Your task to perform on an android device: Open Maps and search for coffee Image 0: 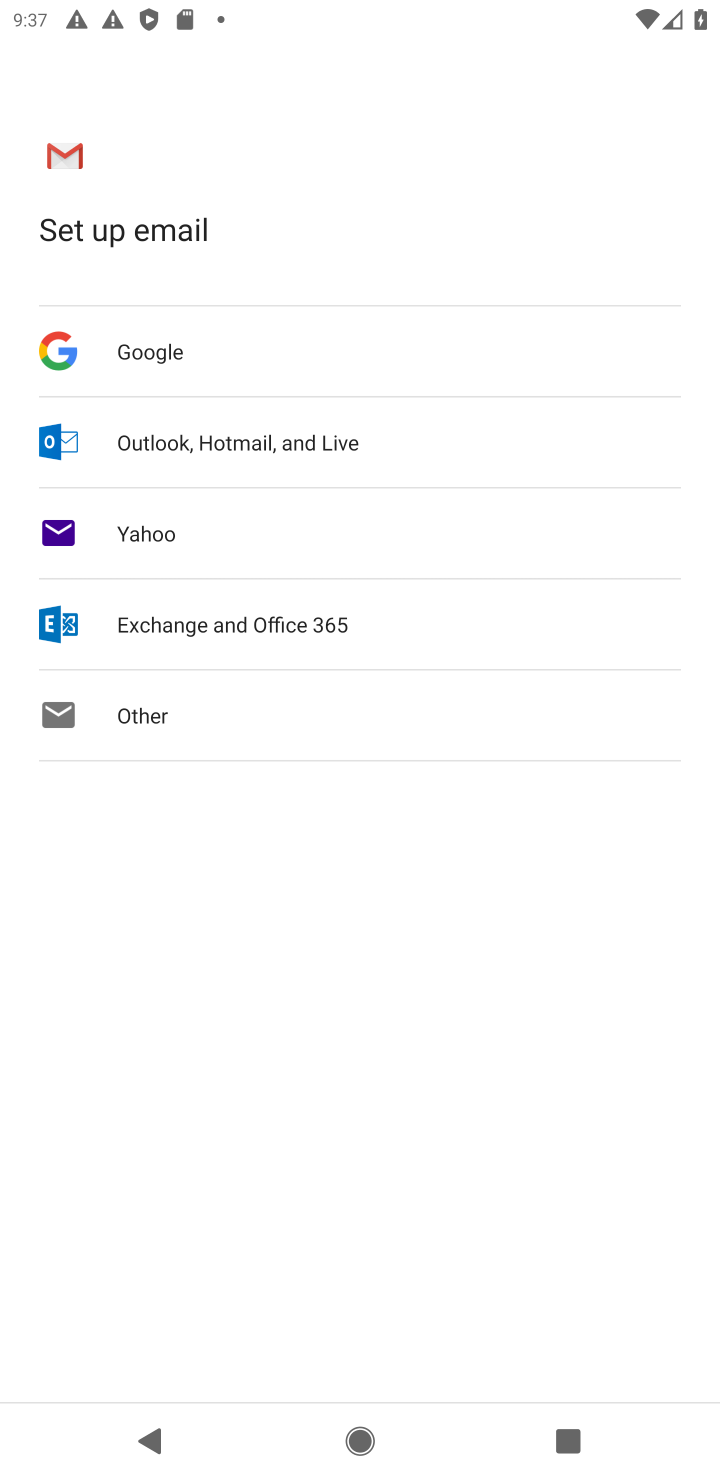
Step 0: press home button
Your task to perform on an android device: Open Maps and search for coffee Image 1: 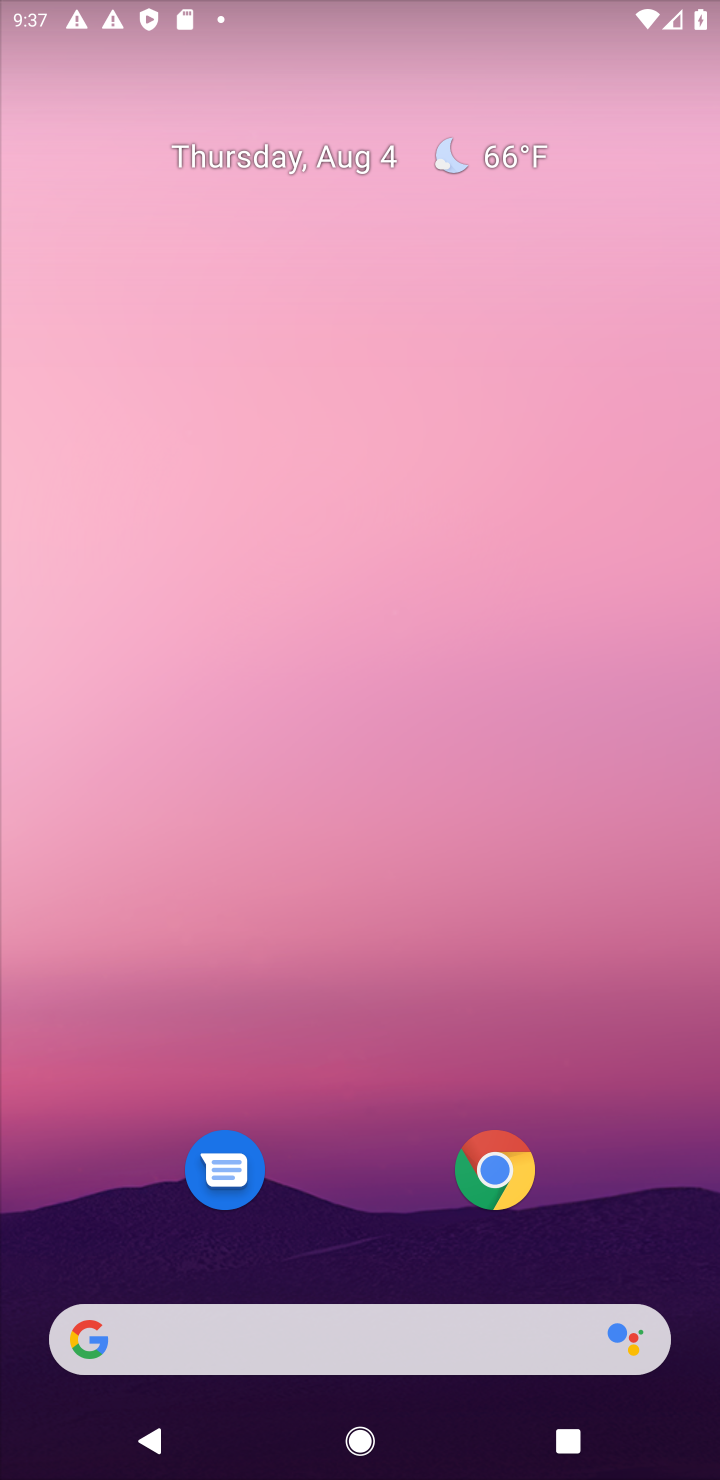
Step 1: drag from (379, 792) to (441, 1)
Your task to perform on an android device: Open Maps and search for coffee Image 2: 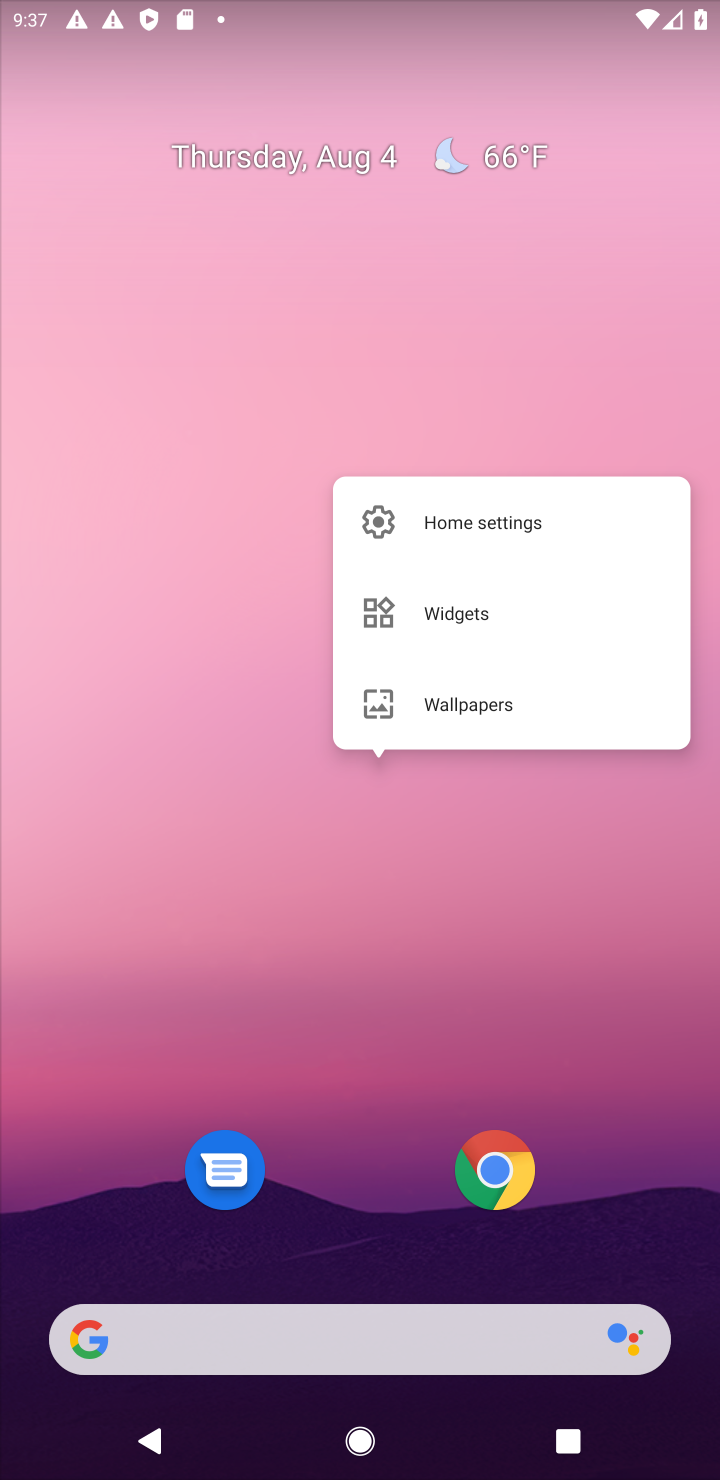
Step 2: click (456, 1143)
Your task to perform on an android device: Open Maps and search for coffee Image 3: 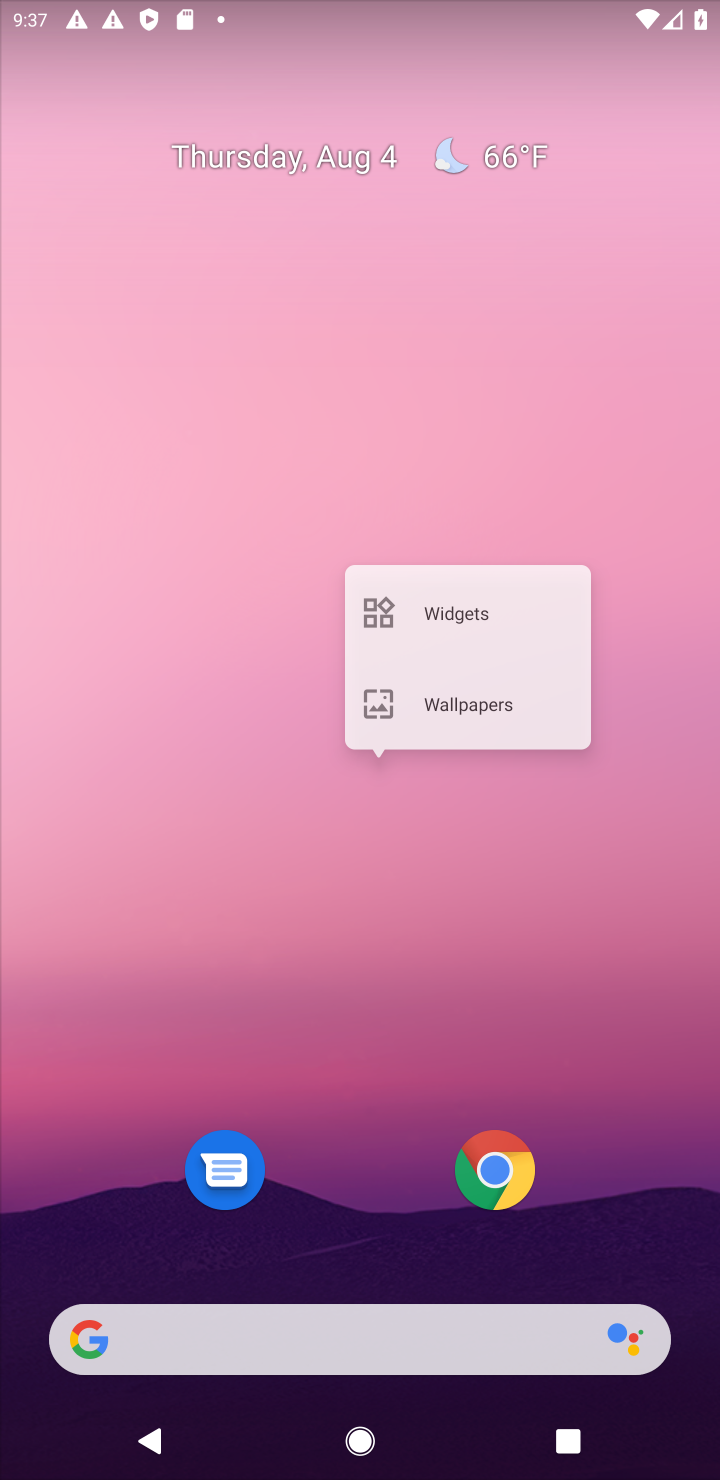
Step 3: click (388, 1012)
Your task to perform on an android device: Open Maps and search for coffee Image 4: 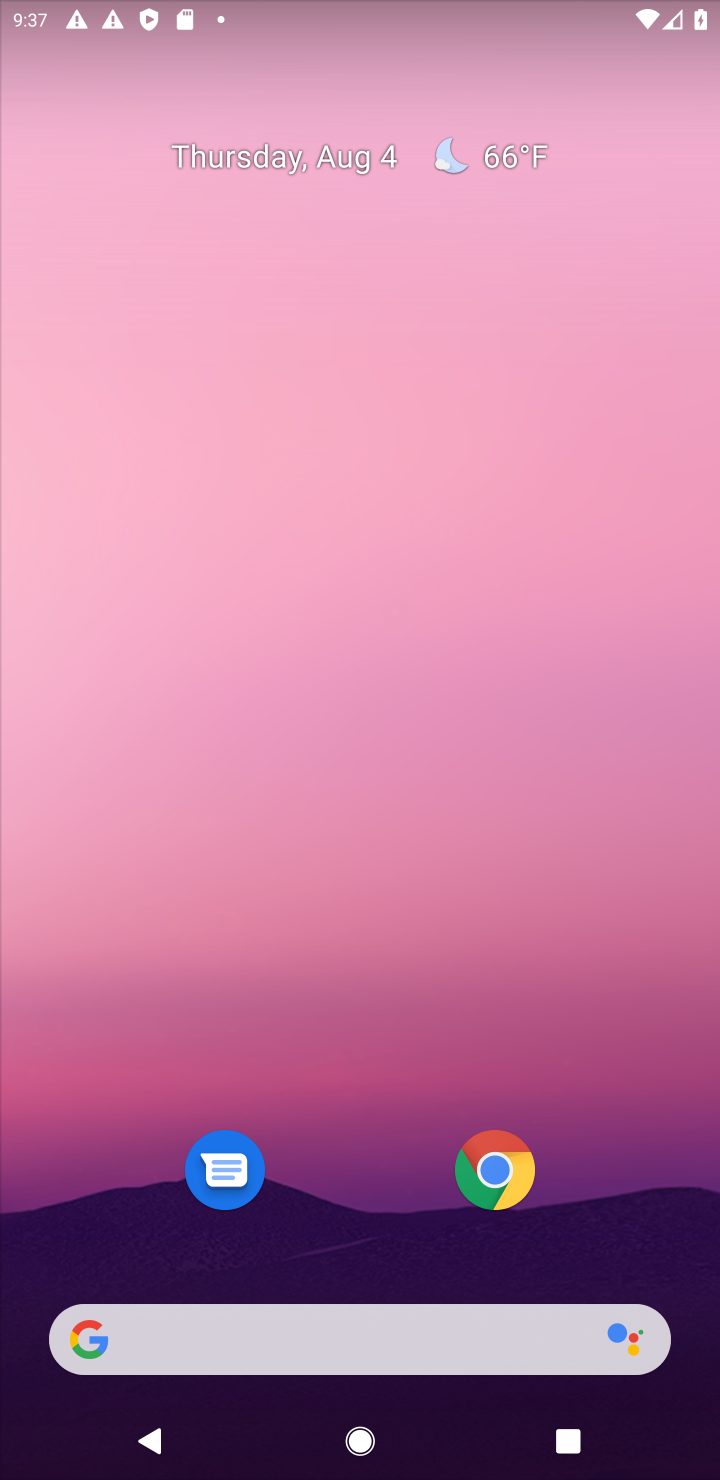
Step 4: drag from (370, 1024) to (344, 5)
Your task to perform on an android device: Open Maps and search for coffee Image 5: 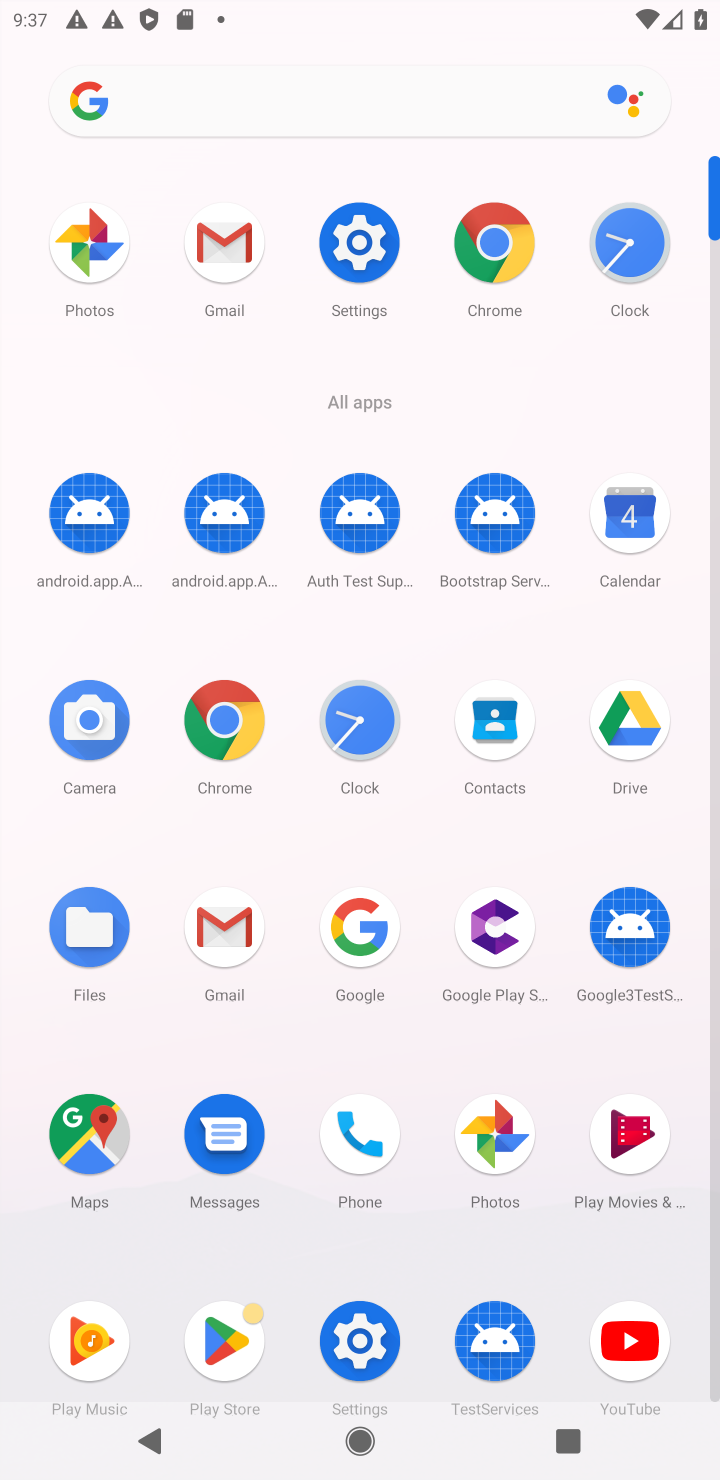
Step 5: click (105, 1157)
Your task to perform on an android device: Open Maps and search for coffee Image 6: 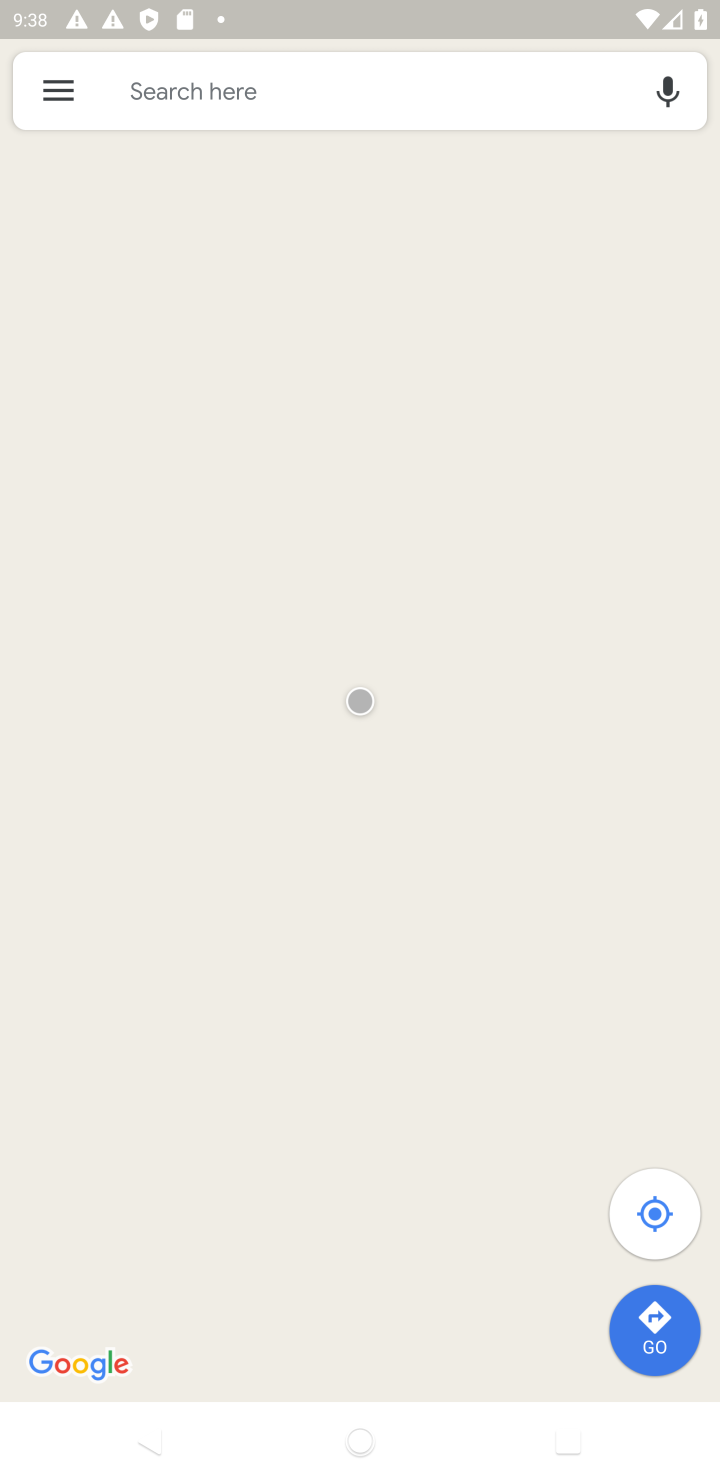
Step 6: click (137, 70)
Your task to perform on an android device: Open Maps and search for coffee Image 7: 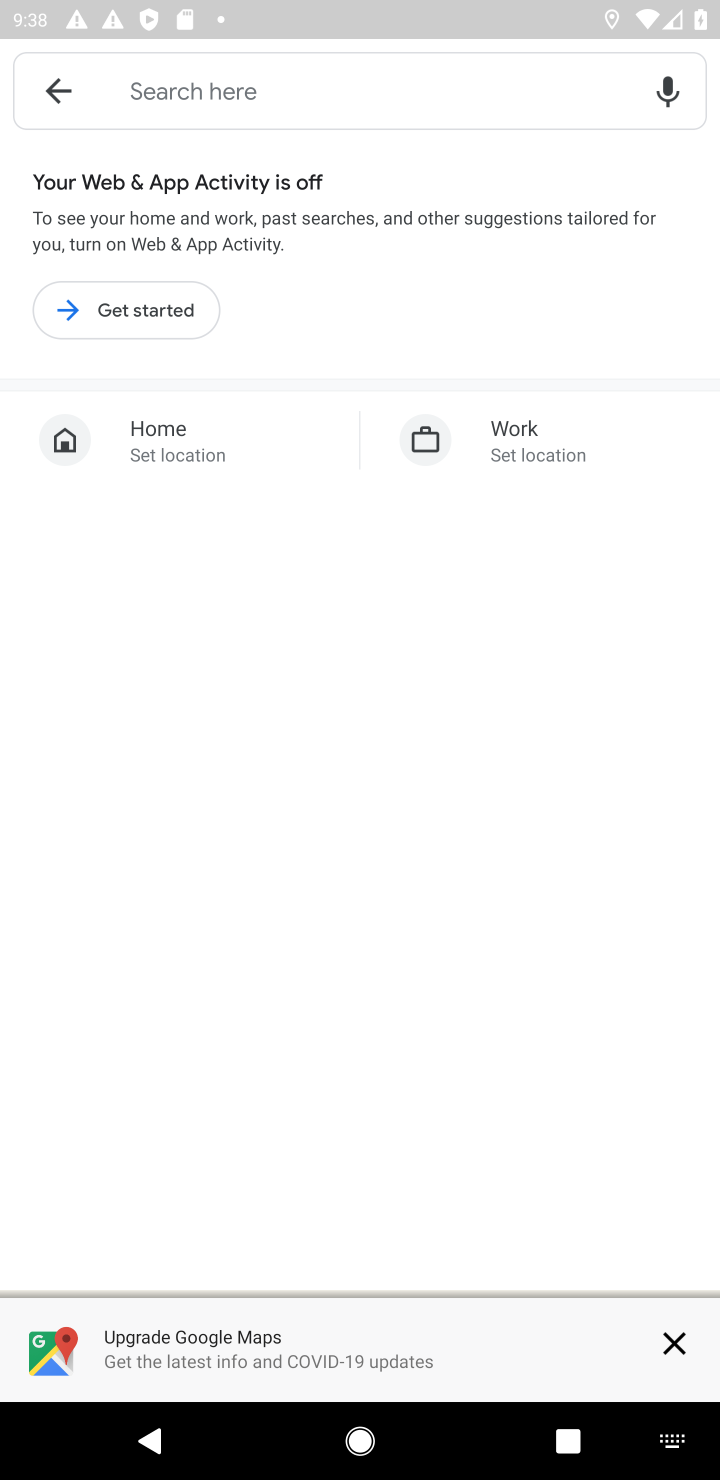
Step 7: type "coffee"
Your task to perform on an android device: Open Maps and search for coffee Image 8: 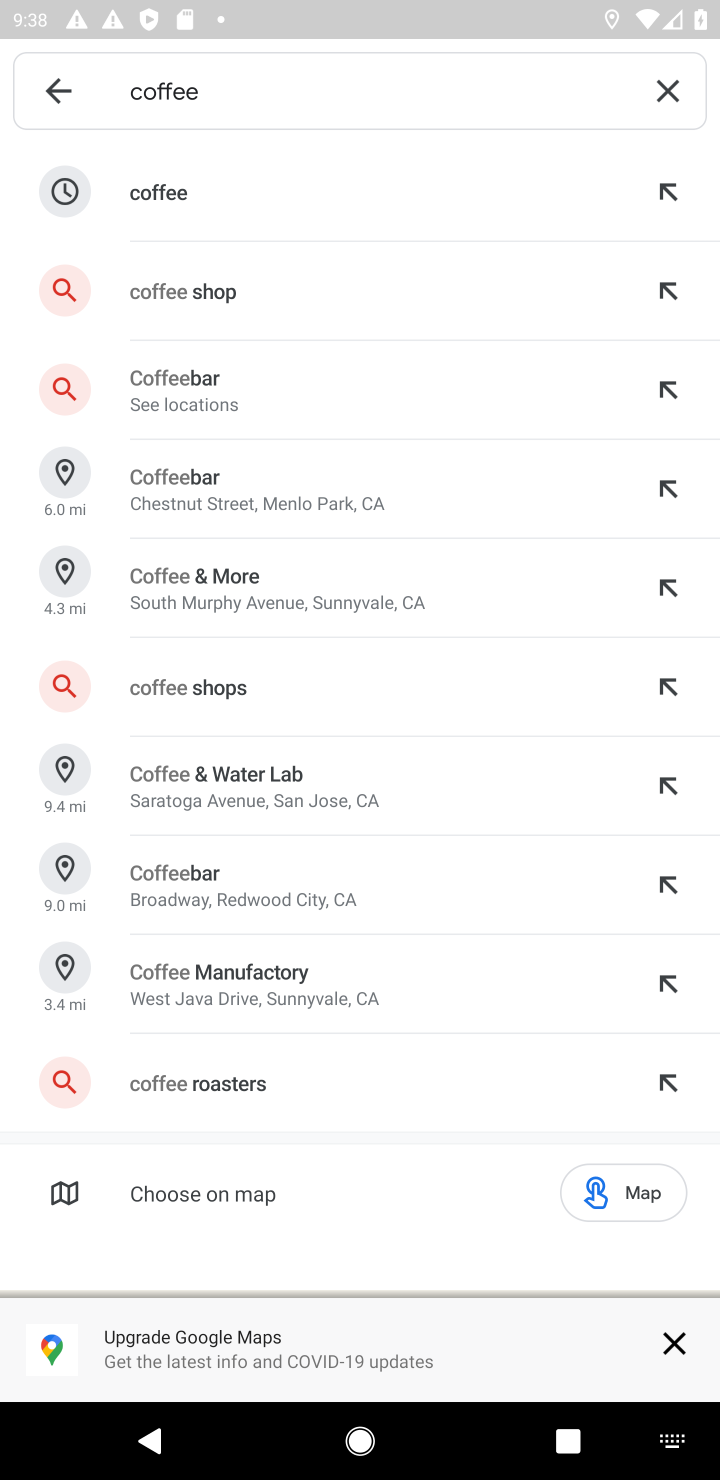
Step 8: click (225, 205)
Your task to perform on an android device: Open Maps and search for coffee Image 9: 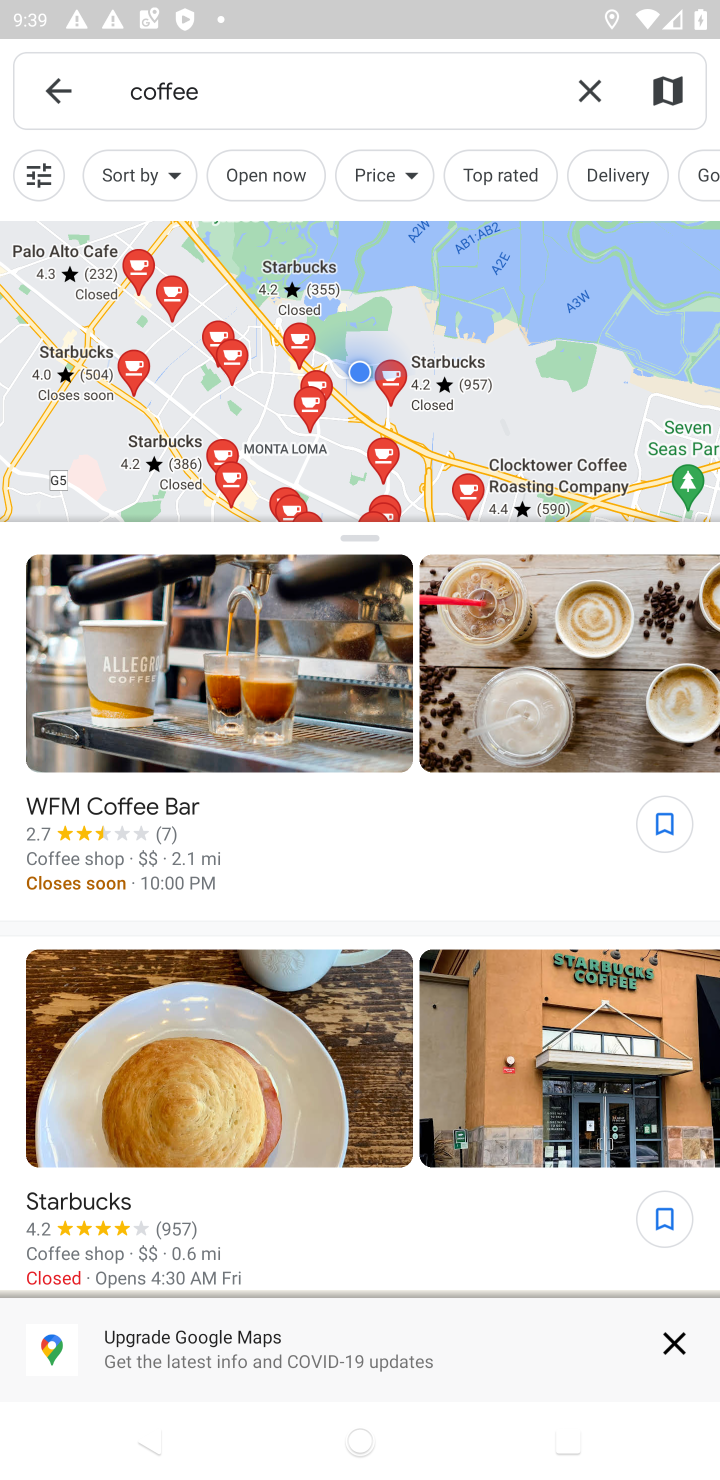
Step 9: task complete